Your task to perform on an android device: turn off location Image 0: 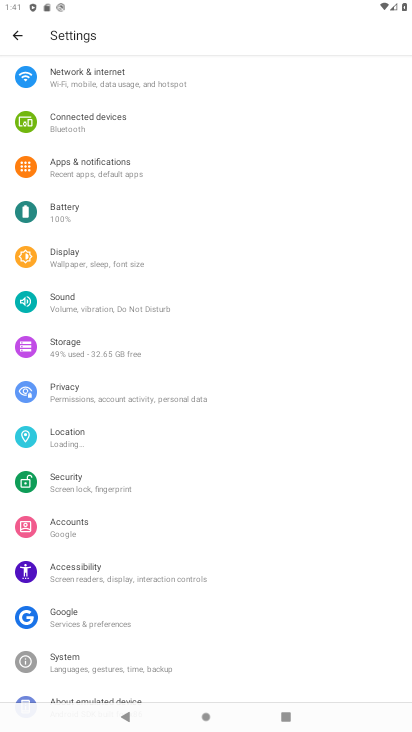
Step 0: click (59, 440)
Your task to perform on an android device: turn off location Image 1: 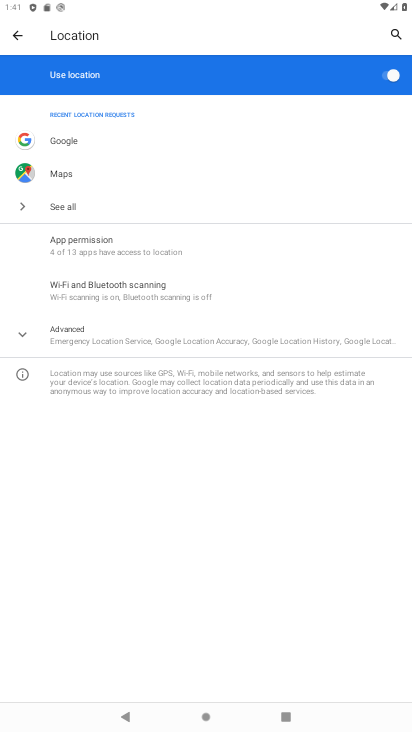
Step 1: click (394, 75)
Your task to perform on an android device: turn off location Image 2: 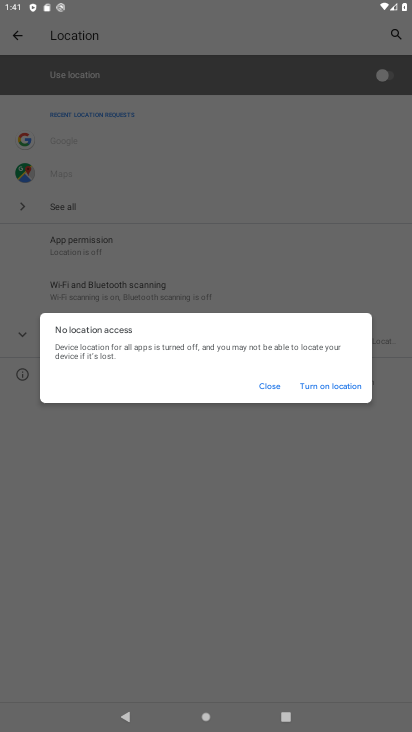
Step 2: task complete